Your task to perform on an android device: turn on javascript in the chrome app Image 0: 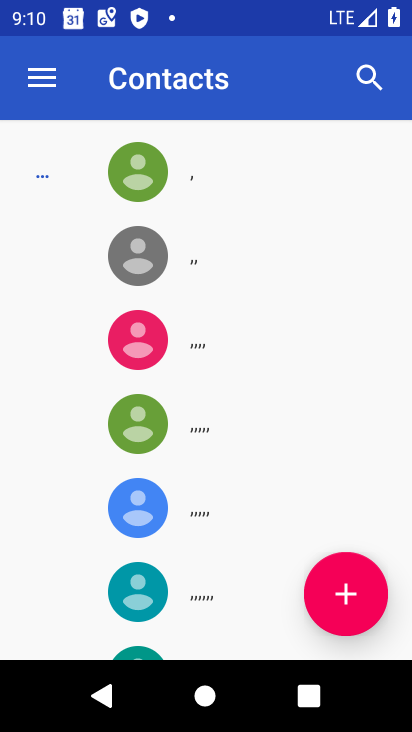
Step 0: press home button
Your task to perform on an android device: turn on javascript in the chrome app Image 1: 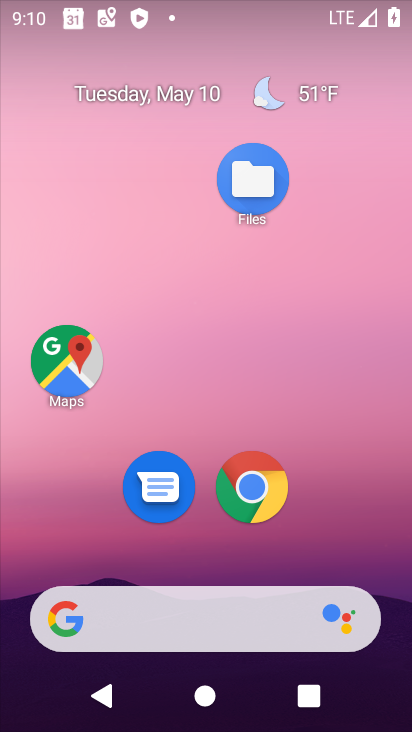
Step 1: click (255, 485)
Your task to perform on an android device: turn on javascript in the chrome app Image 2: 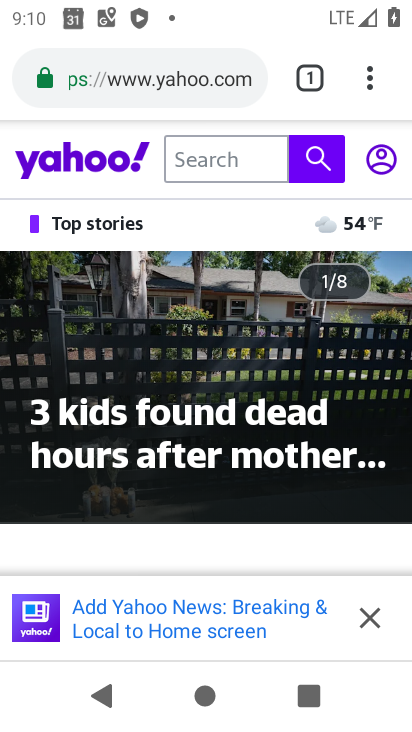
Step 2: click (358, 77)
Your task to perform on an android device: turn on javascript in the chrome app Image 3: 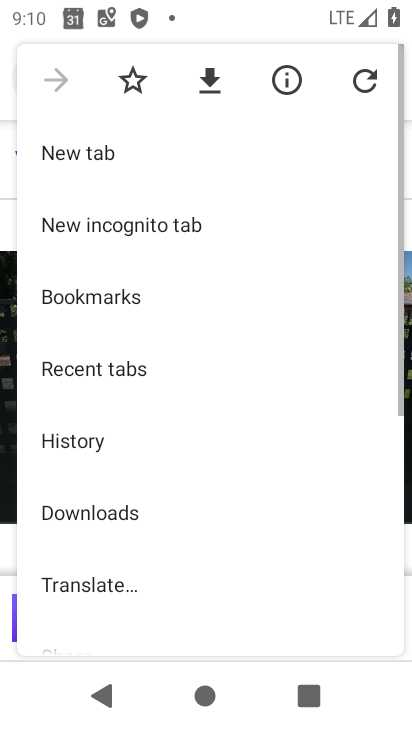
Step 3: drag from (132, 563) to (143, 114)
Your task to perform on an android device: turn on javascript in the chrome app Image 4: 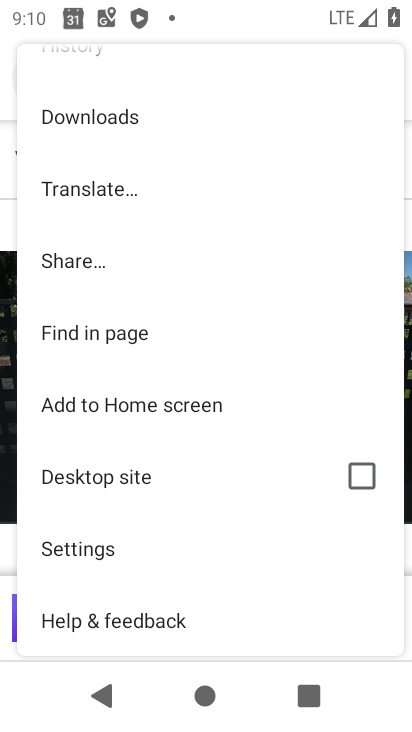
Step 4: click (81, 558)
Your task to perform on an android device: turn on javascript in the chrome app Image 5: 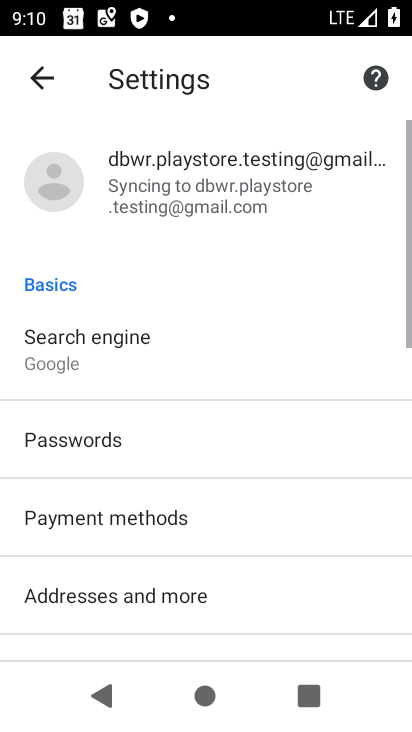
Step 5: drag from (231, 551) to (244, 34)
Your task to perform on an android device: turn on javascript in the chrome app Image 6: 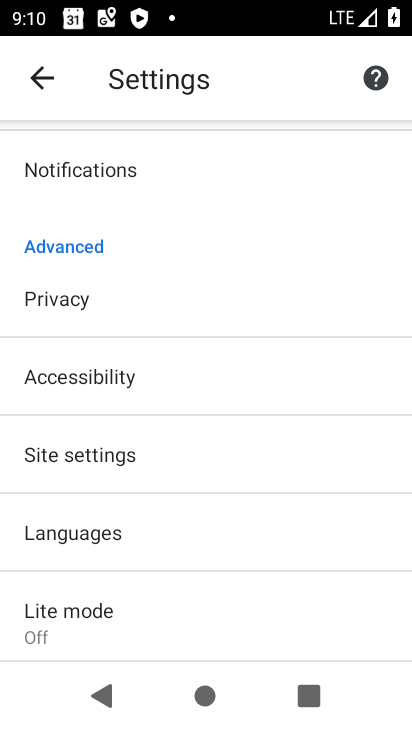
Step 6: click (67, 420)
Your task to perform on an android device: turn on javascript in the chrome app Image 7: 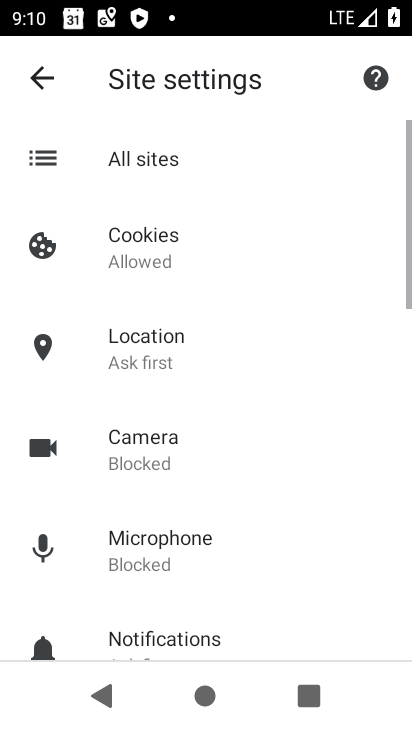
Step 7: drag from (239, 585) to (214, 224)
Your task to perform on an android device: turn on javascript in the chrome app Image 8: 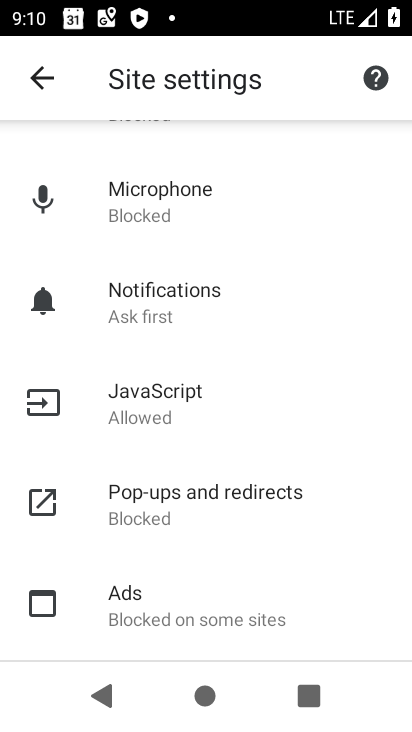
Step 8: click (159, 405)
Your task to perform on an android device: turn on javascript in the chrome app Image 9: 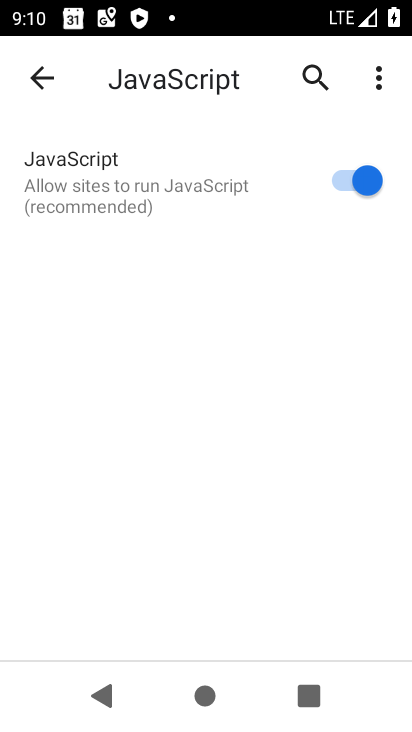
Step 9: task complete